Your task to perform on an android device: install app "Gmail" Image 0: 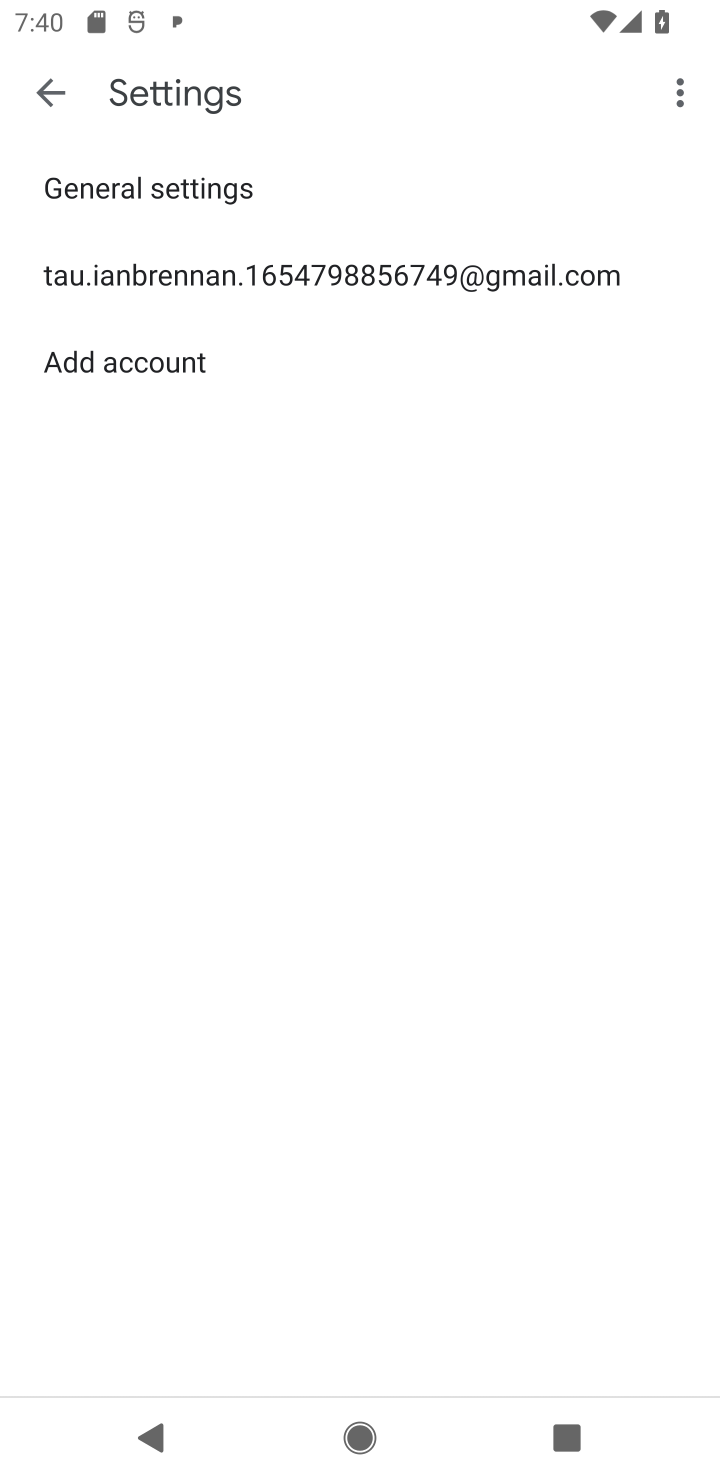
Step 0: press home button
Your task to perform on an android device: install app "Gmail" Image 1: 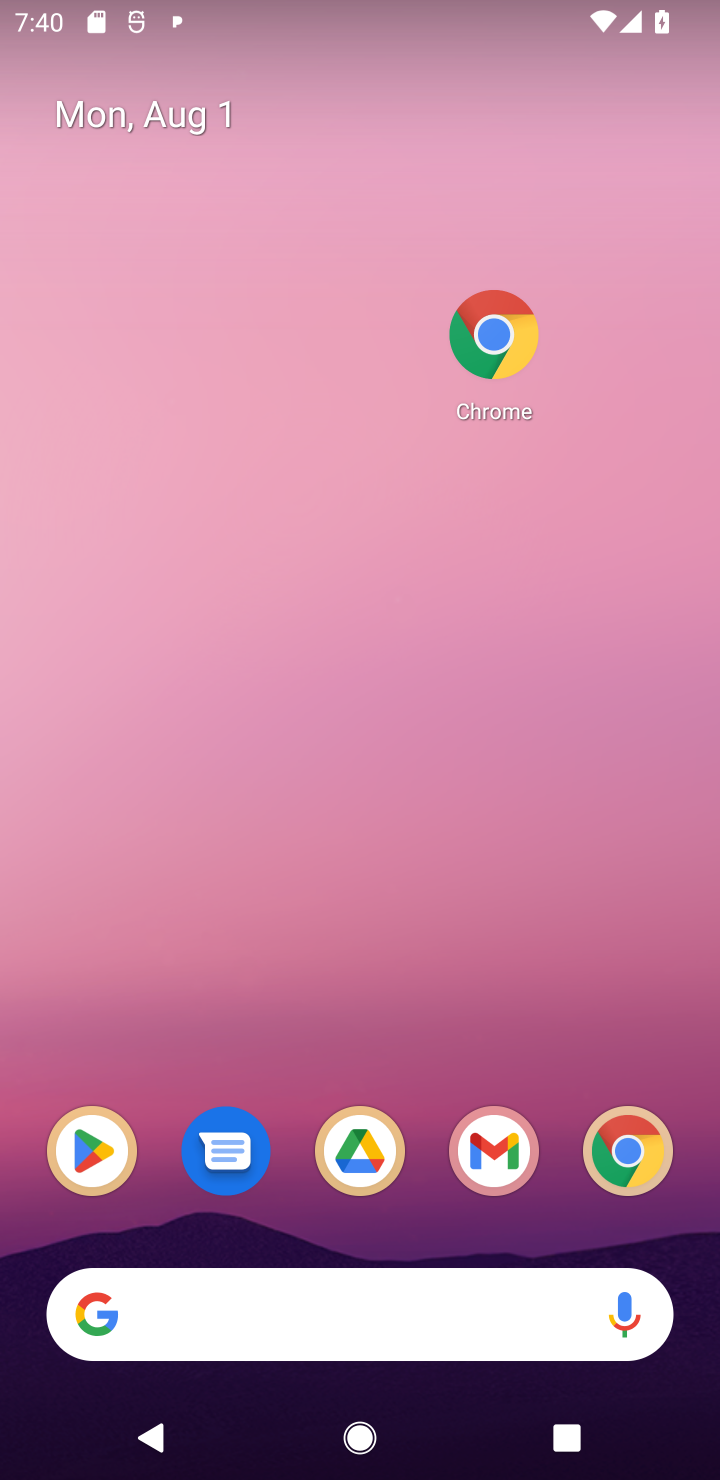
Step 1: click (487, 1163)
Your task to perform on an android device: install app "Gmail" Image 2: 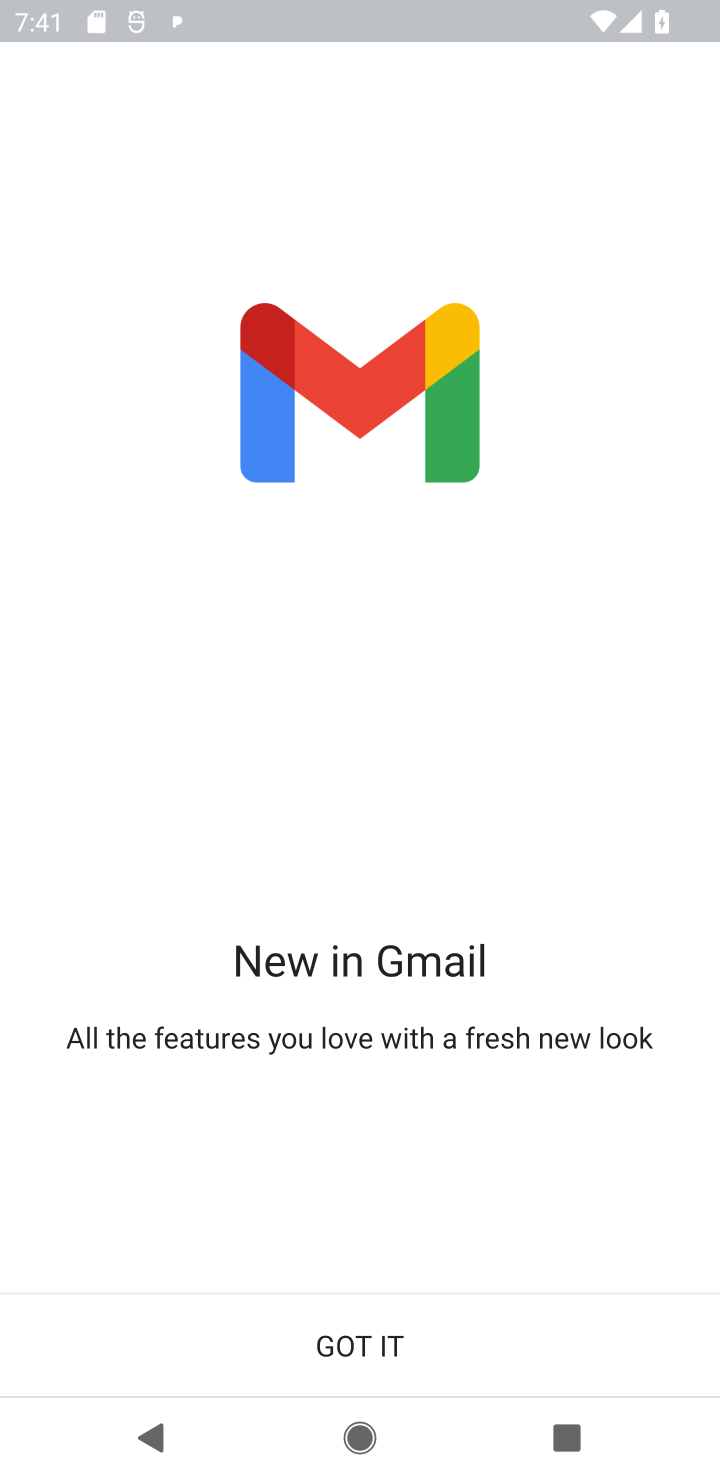
Step 2: task complete